Your task to perform on an android device: Go to notification settings Image 0: 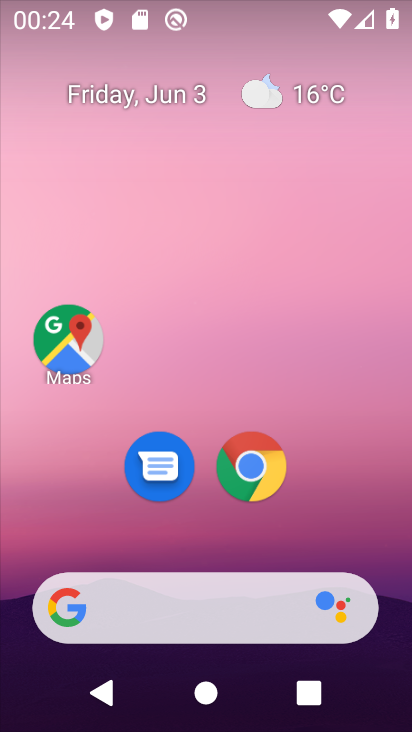
Step 0: drag from (171, 206) to (188, 132)
Your task to perform on an android device: Go to notification settings Image 1: 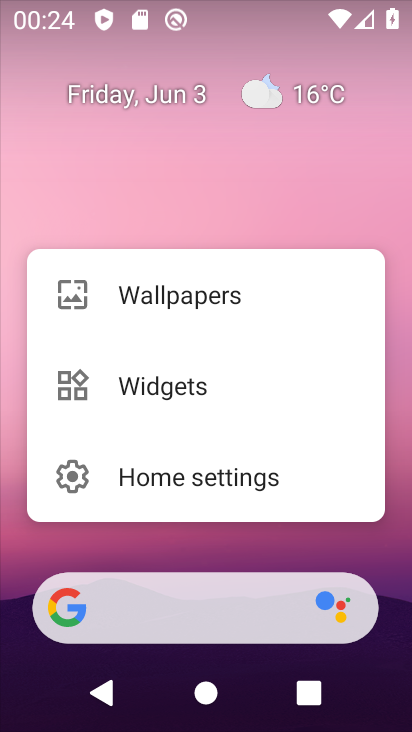
Step 1: drag from (128, 558) to (219, 80)
Your task to perform on an android device: Go to notification settings Image 2: 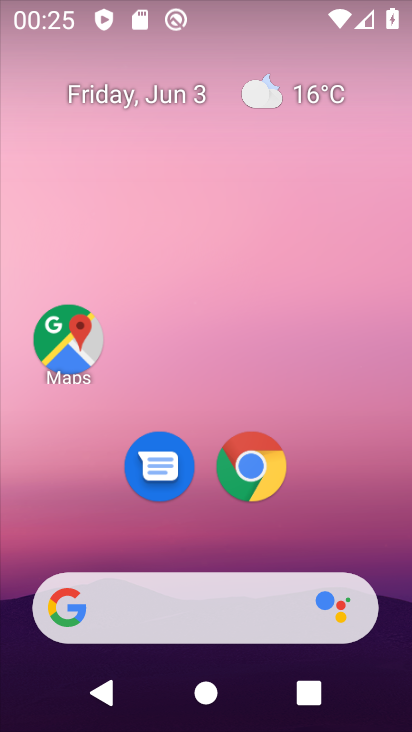
Step 2: drag from (85, 578) to (201, 133)
Your task to perform on an android device: Go to notification settings Image 3: 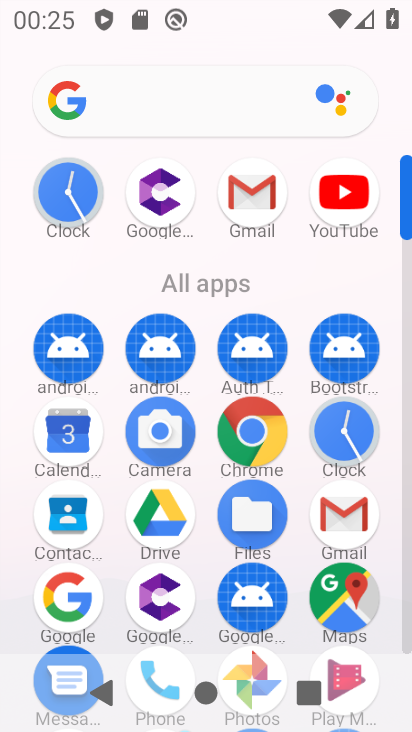
Step 3: drag from (147, 515) to (205, 318)
Your task to perform on an android device: Go to notification settings Image 4: 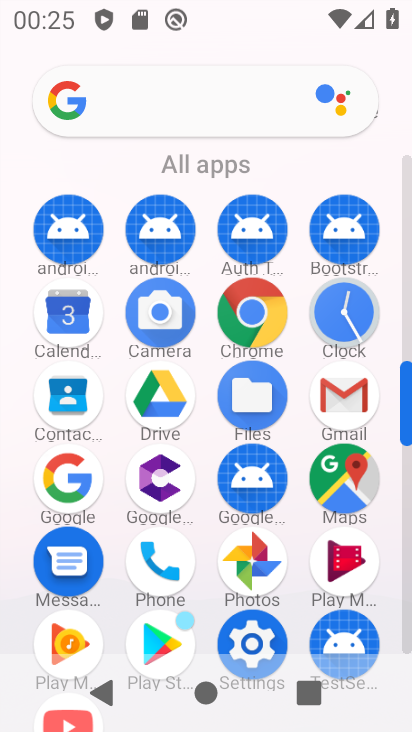
Step 4: click (231, 633)
Your task to perform on an android device: Go to notification settings Image 5: 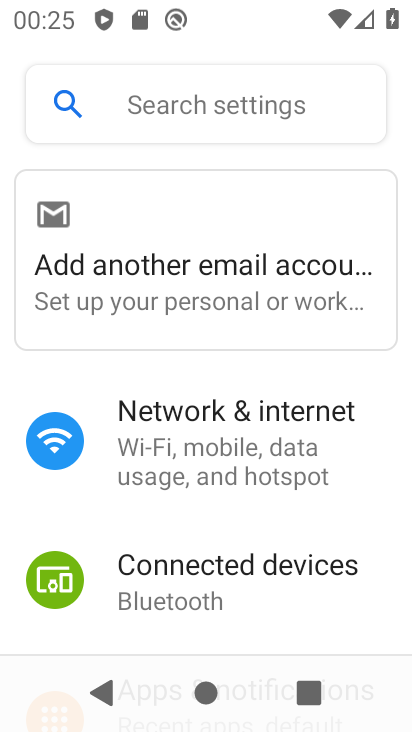
Step 5: drag from (146, 645) to (225, 326)
Your task to perform on an android device: Go to notification settings Image 6: 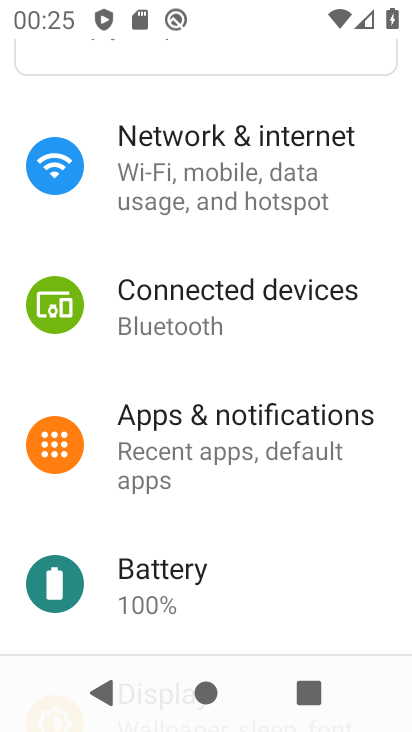
Step 6: click (258, 438)
Your task to perform on an android device: Go to notification settings Image 7: 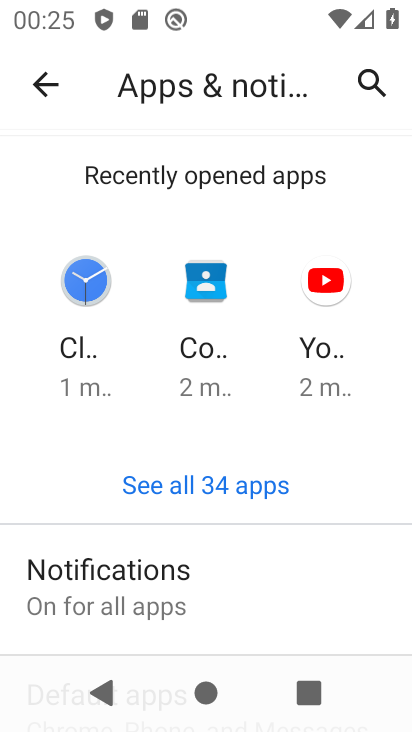
Step 7: task complete